Your task to perform on an android device: turn on javascript in the chrome app Image 0: 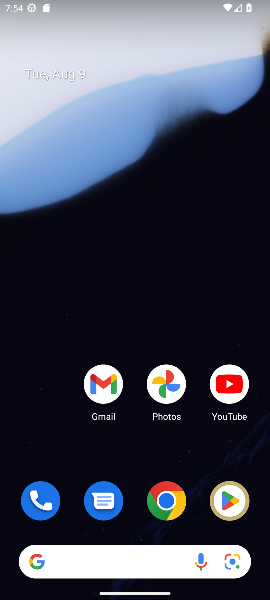
Step 0: click (131, 449)
Your task to perform on an android device: turn on javascript in the chrome app Image 1: 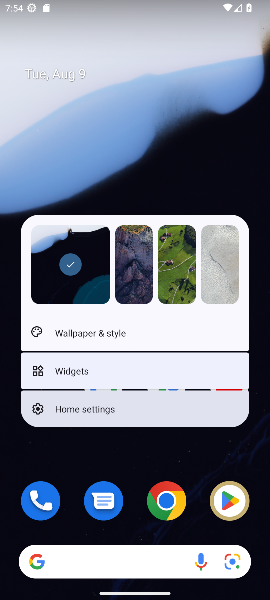
Step 1: click (165, 506)
Your task to perform on an android device: turn on javascript in the chrome app Image 2: 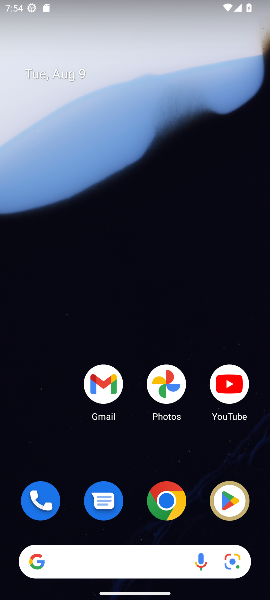
Step 2: click (171, 487)
Your task to perform on an android device: turn on javascript in the chrome app Image 3: 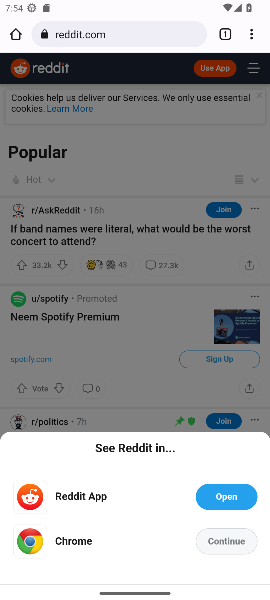
Step 3: click (253, 36)
Your task to perform on an android device: turn on javascript in the chrome app Image 4: 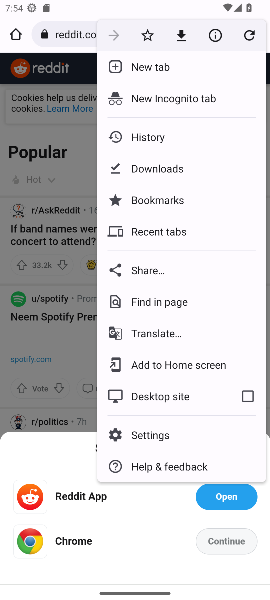
Step 4: click (146, 425)
Your task to perform on an android device: turn on javascript in the chrome app Image 5: 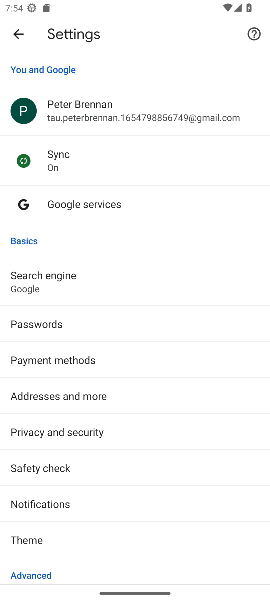
Step 5: drag from (84, 534) to (120, 97)
Your task to perform on an android device: turn on javascript in the chrome app Image 6: 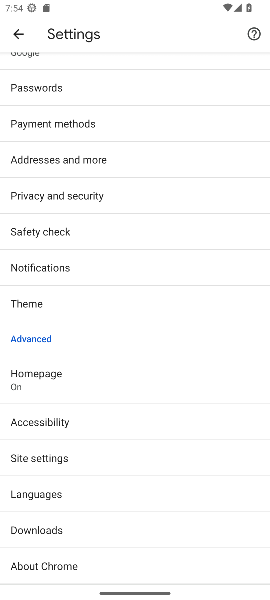
Step 6: click (90, 451)
Your task to perform on an android device: turn on javascript in the chrome app Image 7: 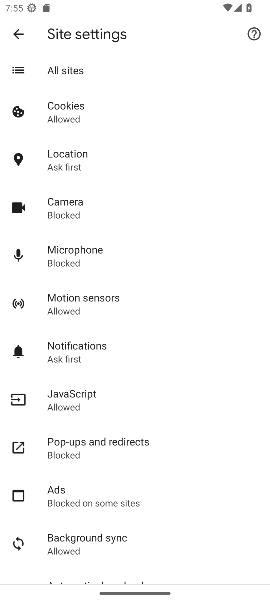
Step 7: click (111, 398)
Your task to perform on an android device: turn on javascript in the chrome app Image 8: 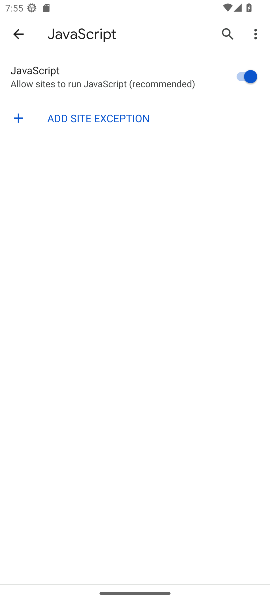
Step 8: task complete